Your task to perform on an android device: Open network settings Image 0: 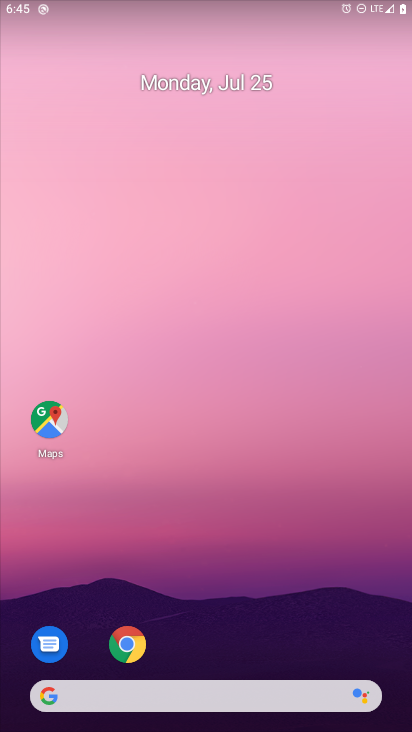
Step 0: click (296, 152)
Your task to perform on an android device: Open network settings Image 1: 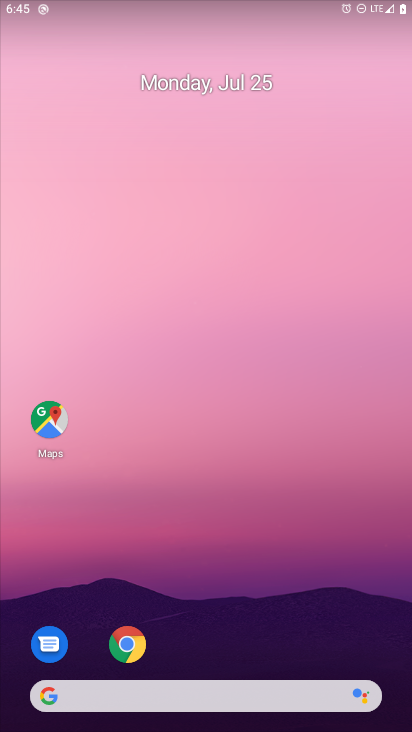
Step 1: drag from (212, 653) to (244, 170)
Your task to perform on an android device: Open network settings Image 2: 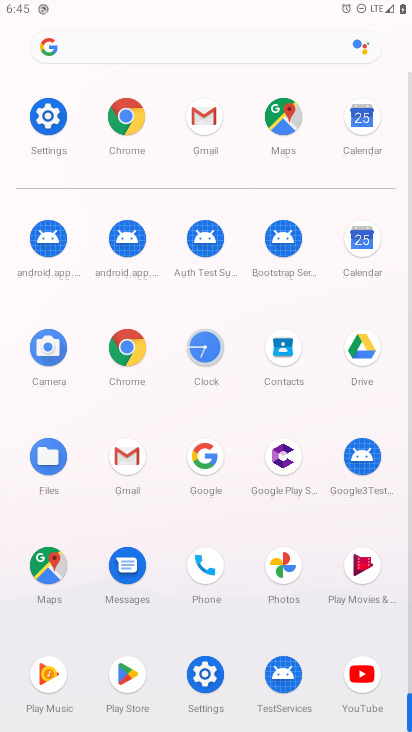
Step 2: click (32, 116)
Your task to perform on an android device: Open network settings Image 3: 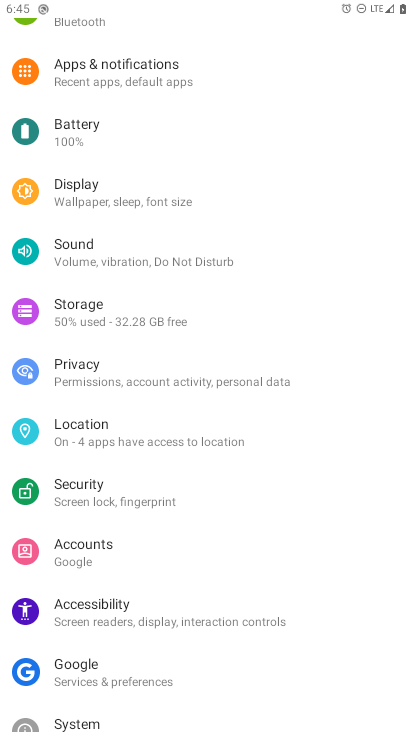
Step 3: drag from (262, 118) to (338, 583)
Your task to perform on an android device: Open network settings Image 4: 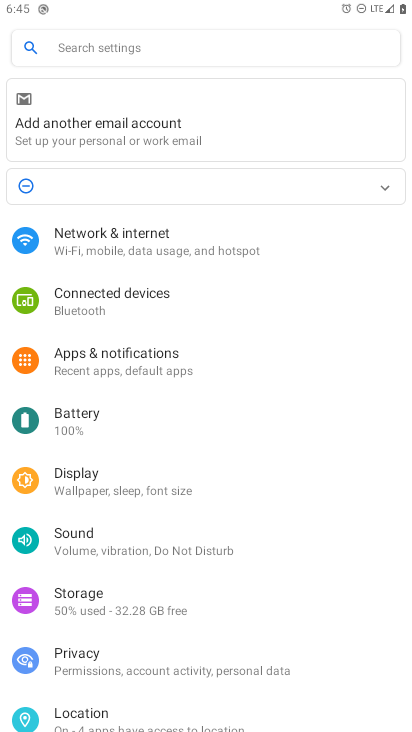
Step 4: click (82, 237)
Your task to perform on an android device: Open network settings Image 5: 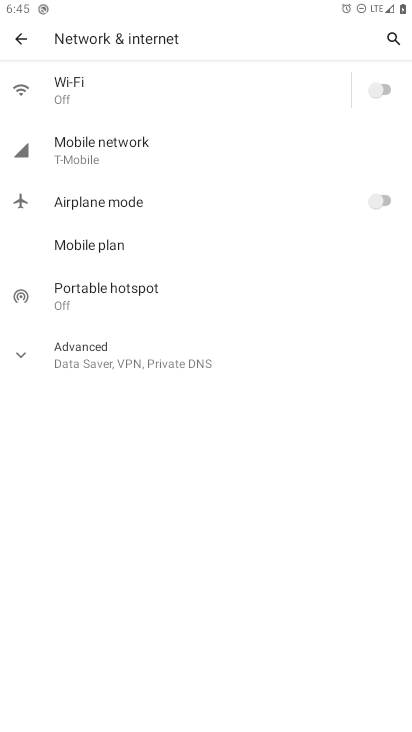
Step 5: task complete